Your task to perform on an android device: Add usb-a to the cart on amazon Image 0: 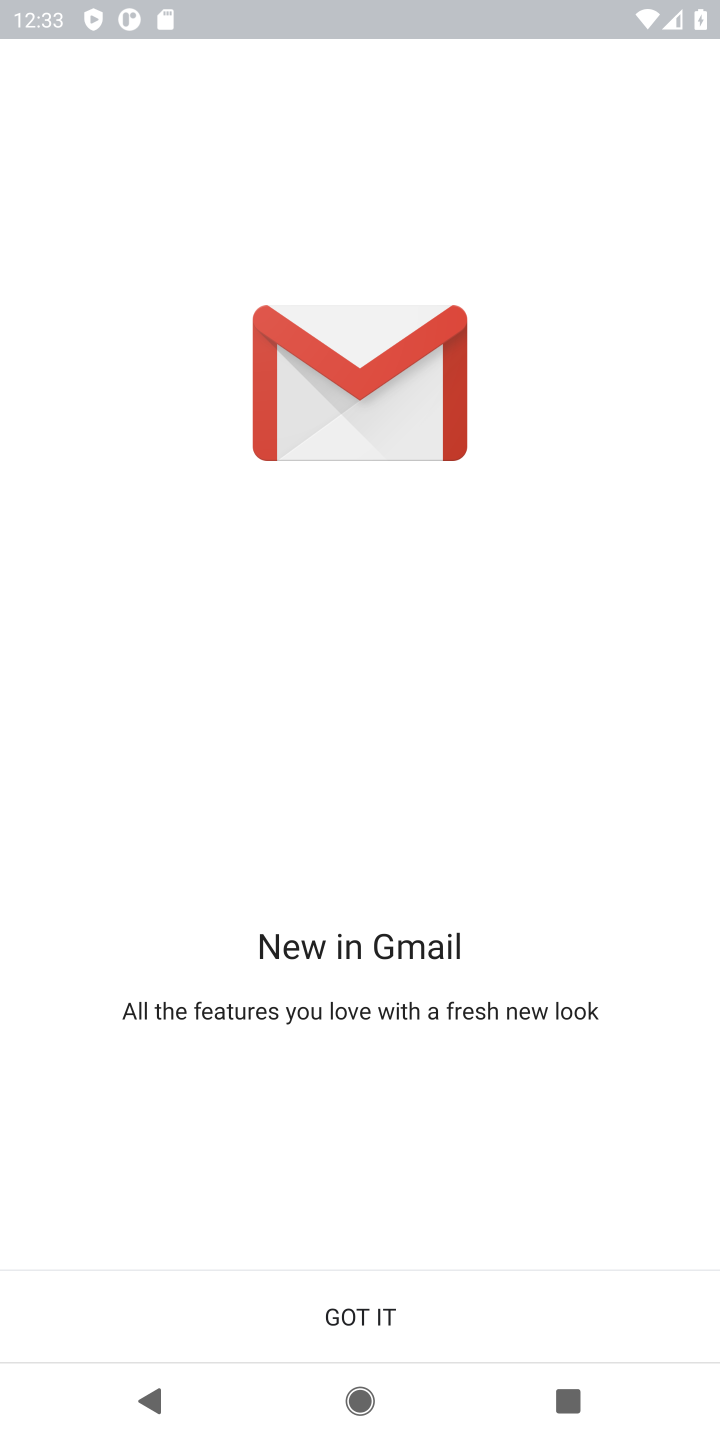
Step 0: press home button
Your task to perform on an android device: Add usb-a to the cart on amazon Image 1: 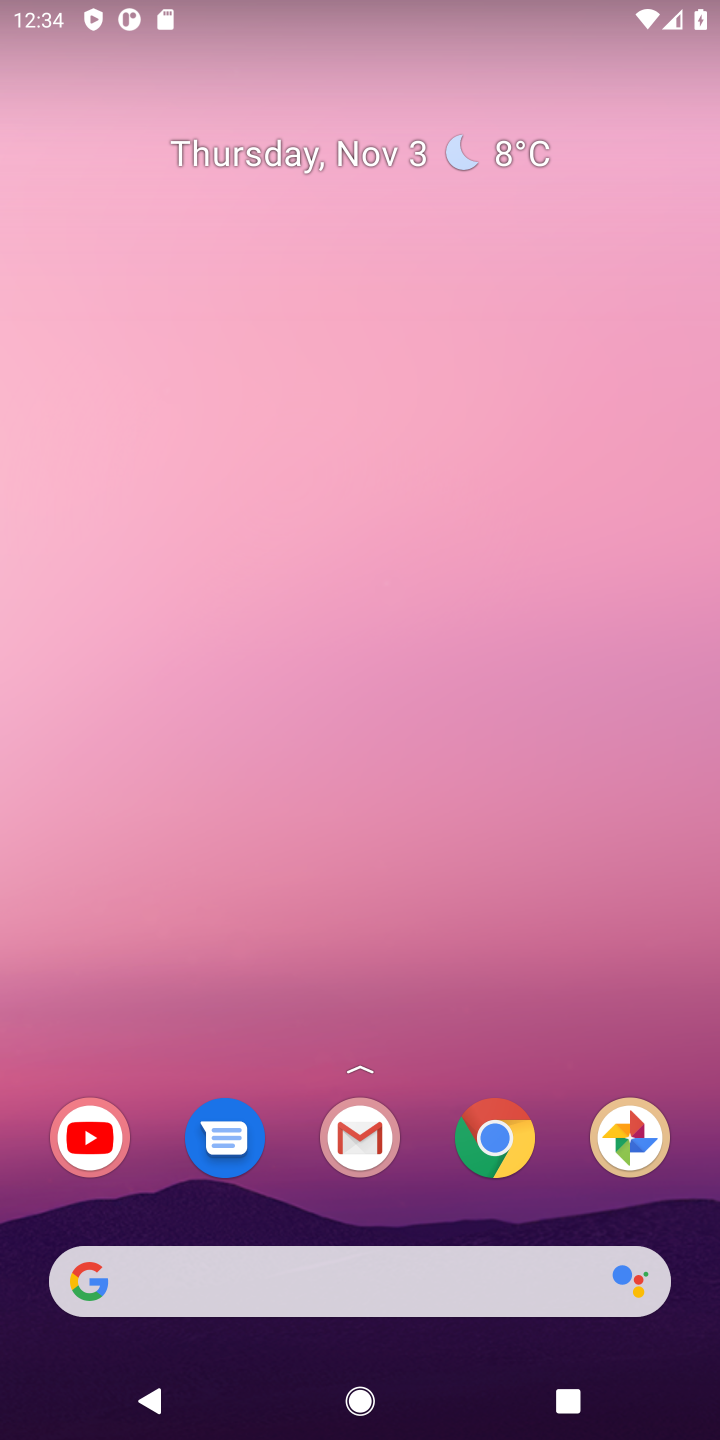
Step 1: click (471, 1111)
Your task to perform on an android device: Add usb-a to the cart on amazon Image 2: 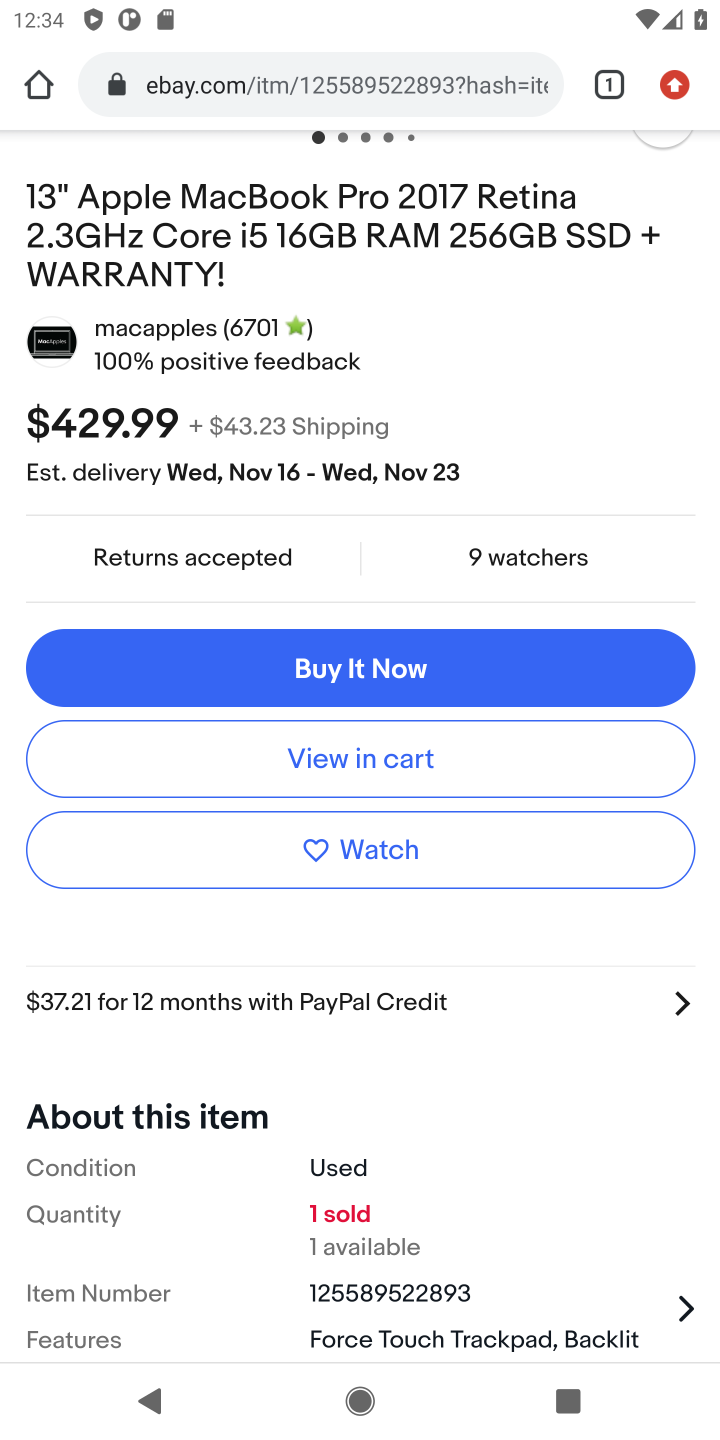
Step 2: click (202, 98)
Your task to perform on an android device: Add usb-a to the cart on amazon Image 3: 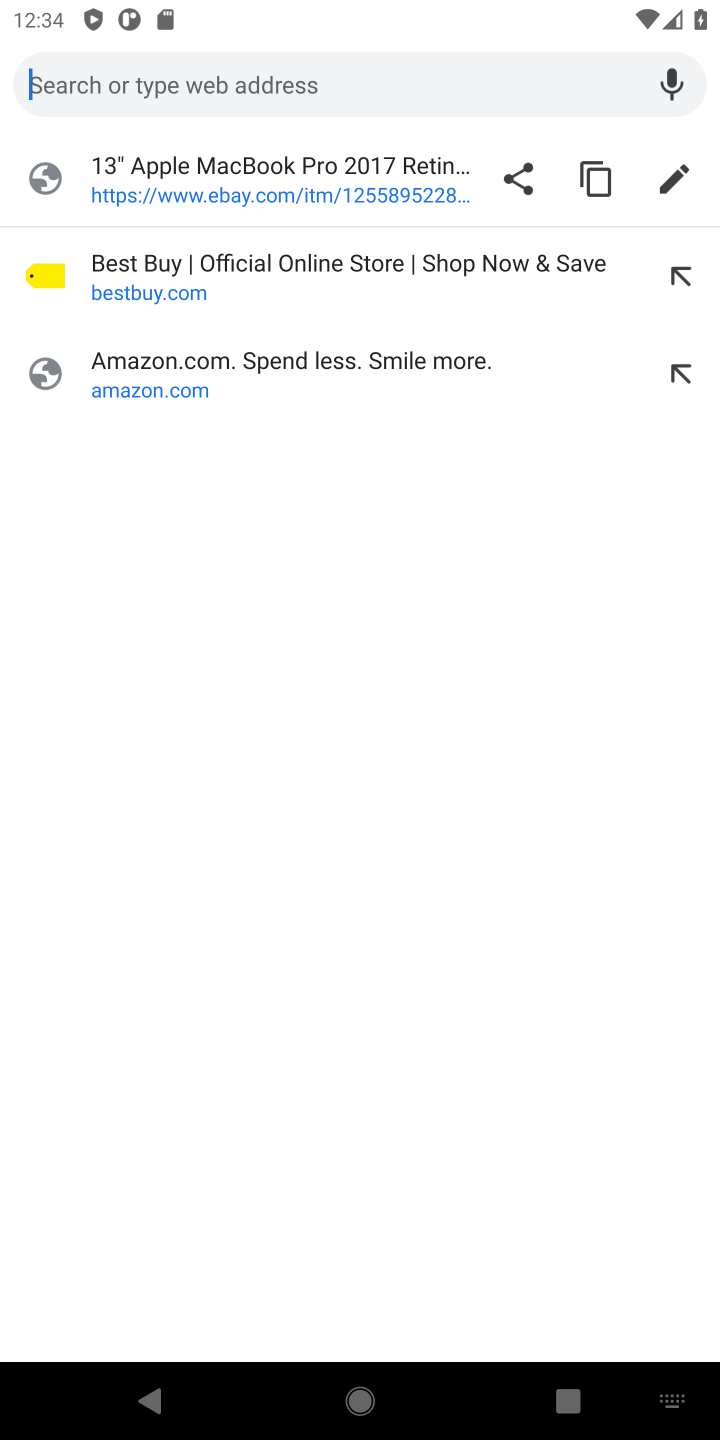
Step 3: type "amazon"
Your task to perform on an android device: Add usb-a to the cart on amazon Image 4: 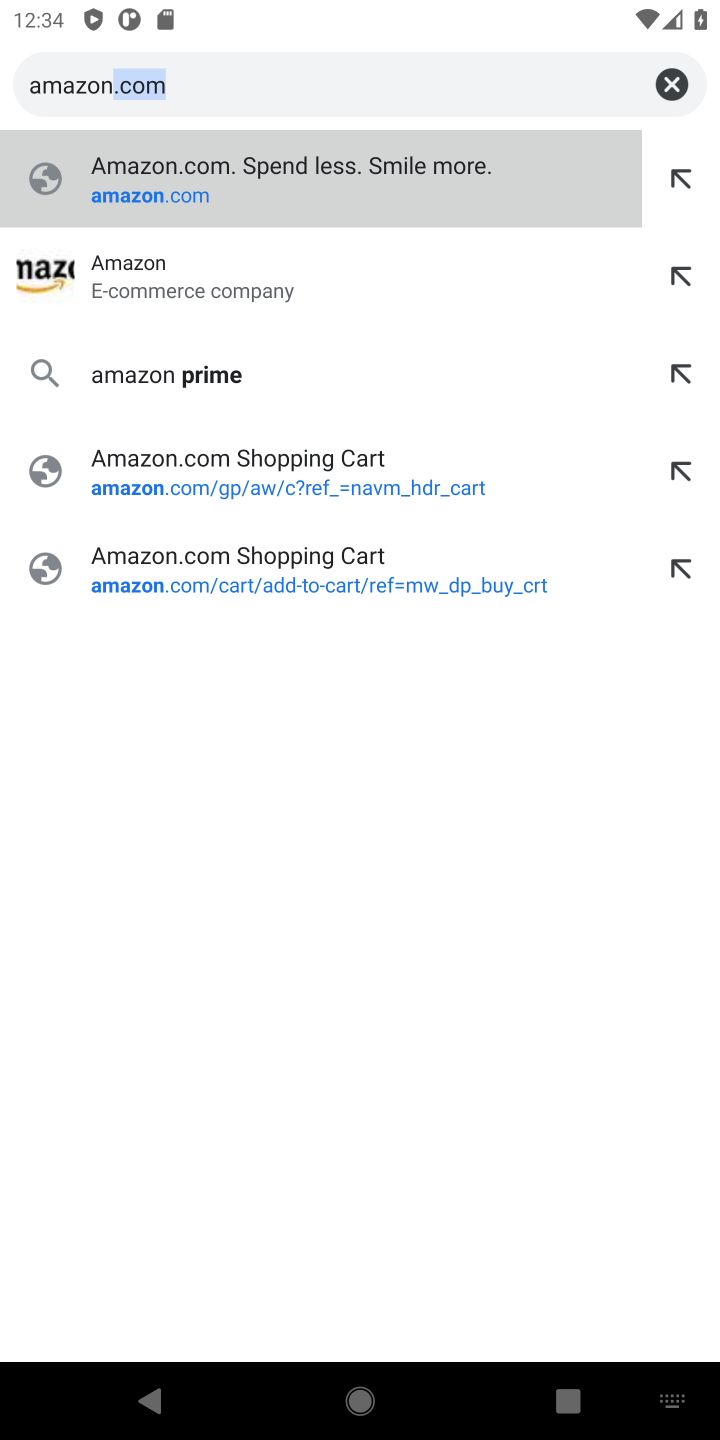
Step 4: click (126, 260)
Your task to perform on an android device: Add usb-a to the cart on amazon Image 5: 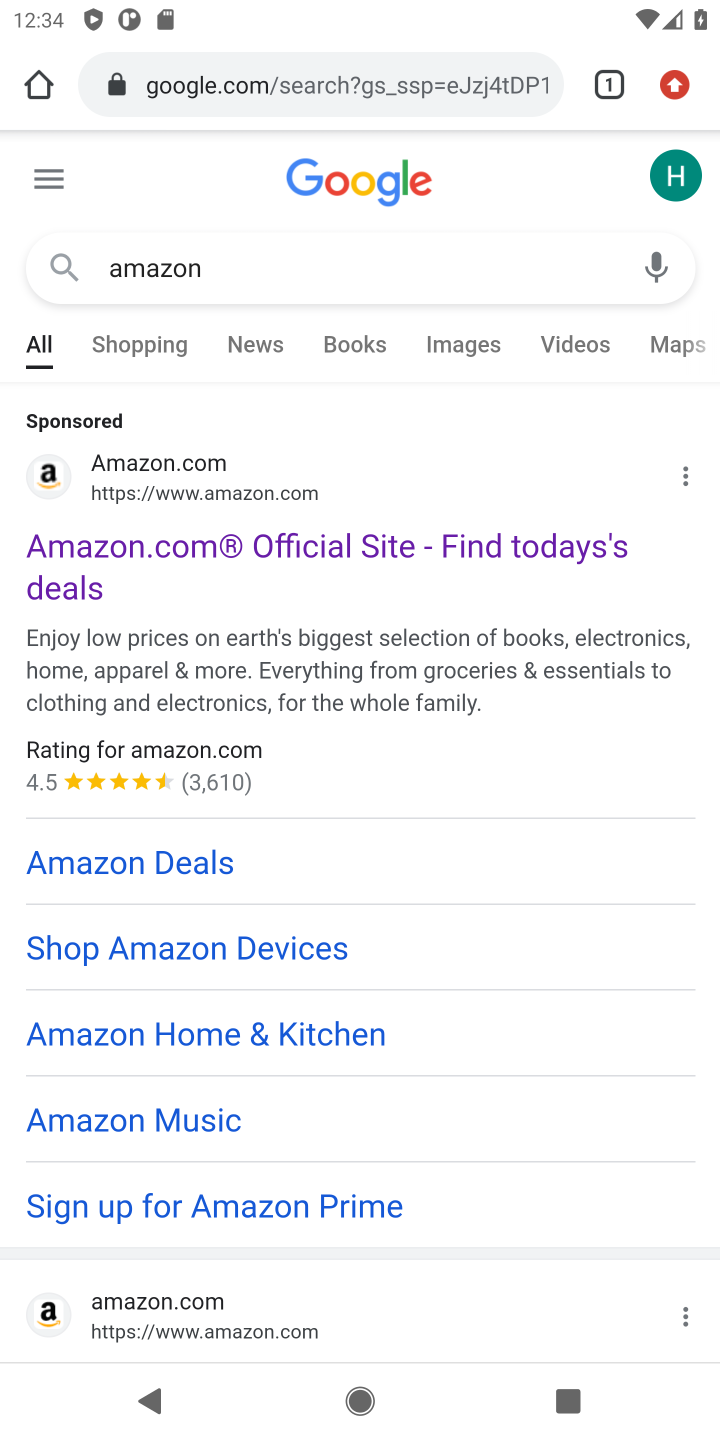
Step 5: click (65, 565)
Your task to perform on an android device: Add usb-a to the cart on amazon Image 6: 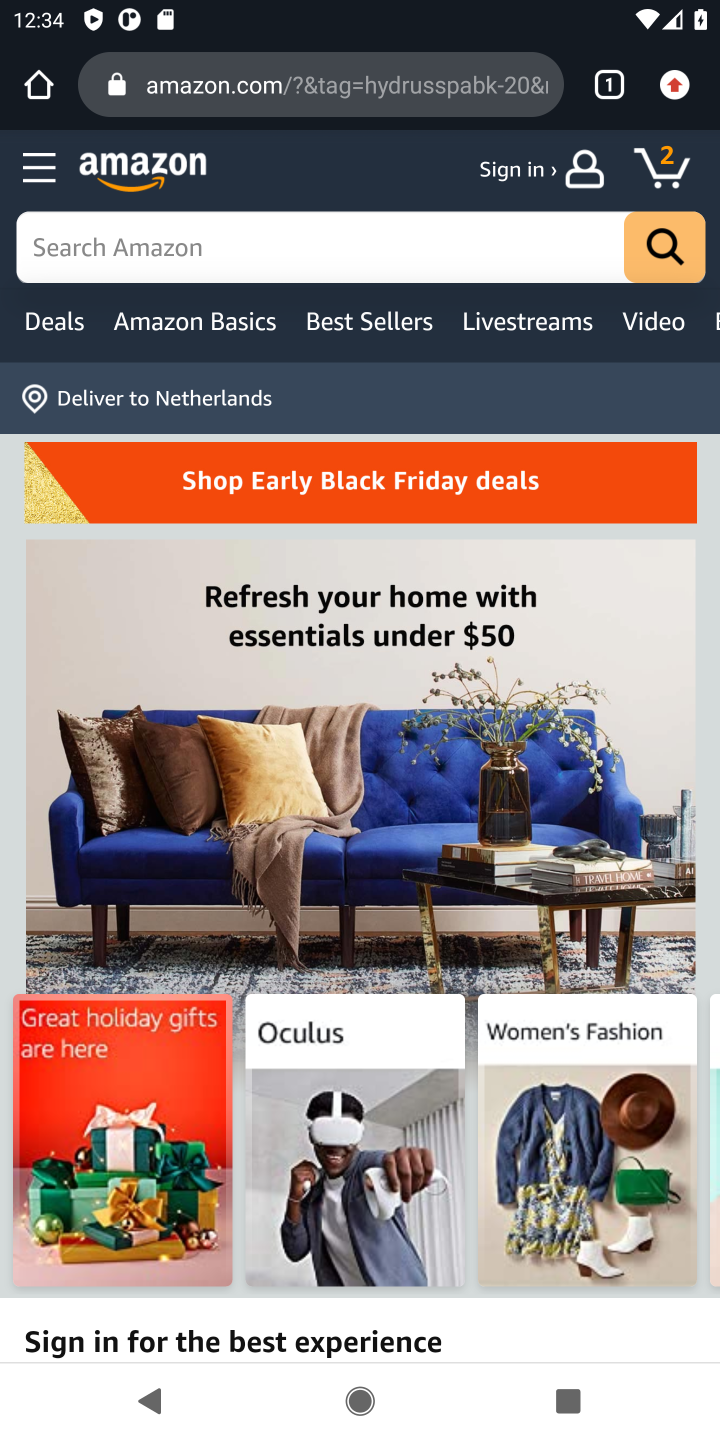
Step 6: click (281, 231)
Your task to perform on an android device: Add usb-a to the cart on amazon Image 7: 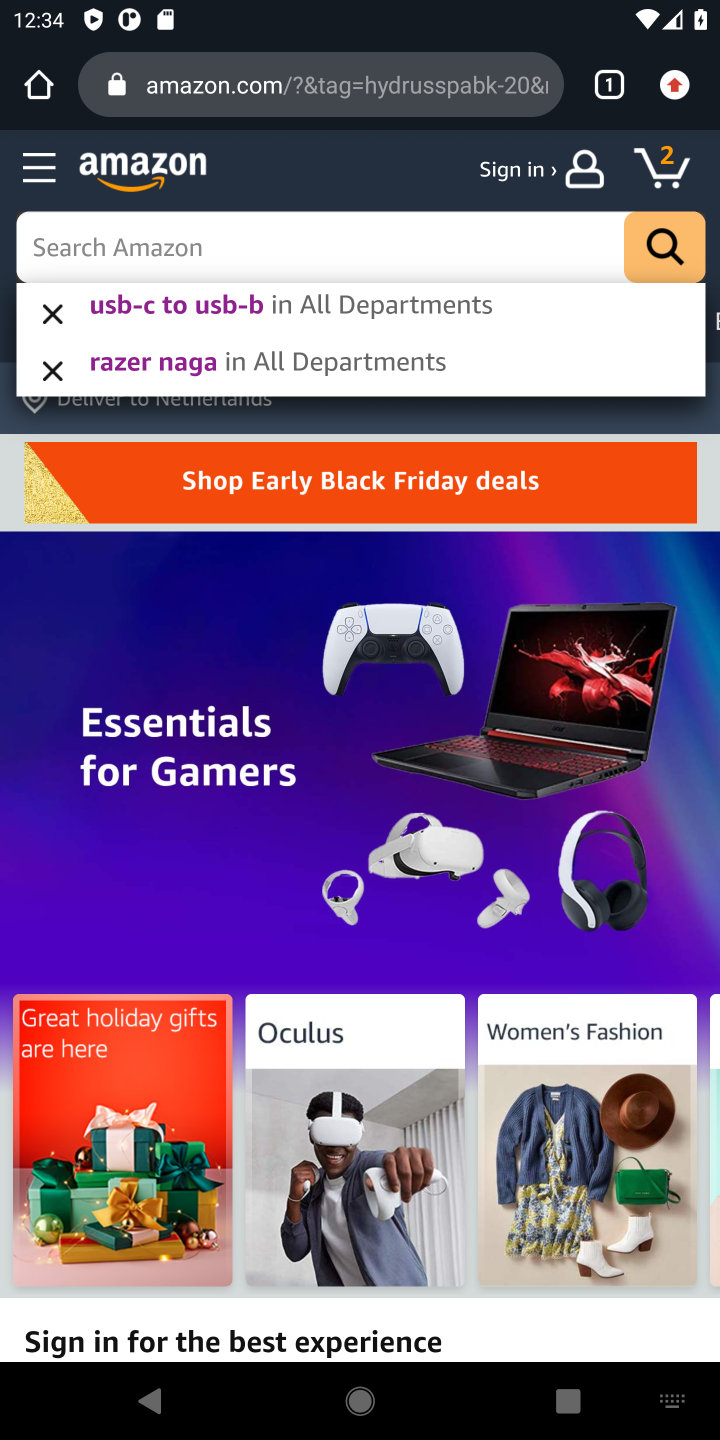
Step 7: type "usb-a"
Your task to perform on an android device: Add usb-a to the cart on amazon Image 8: 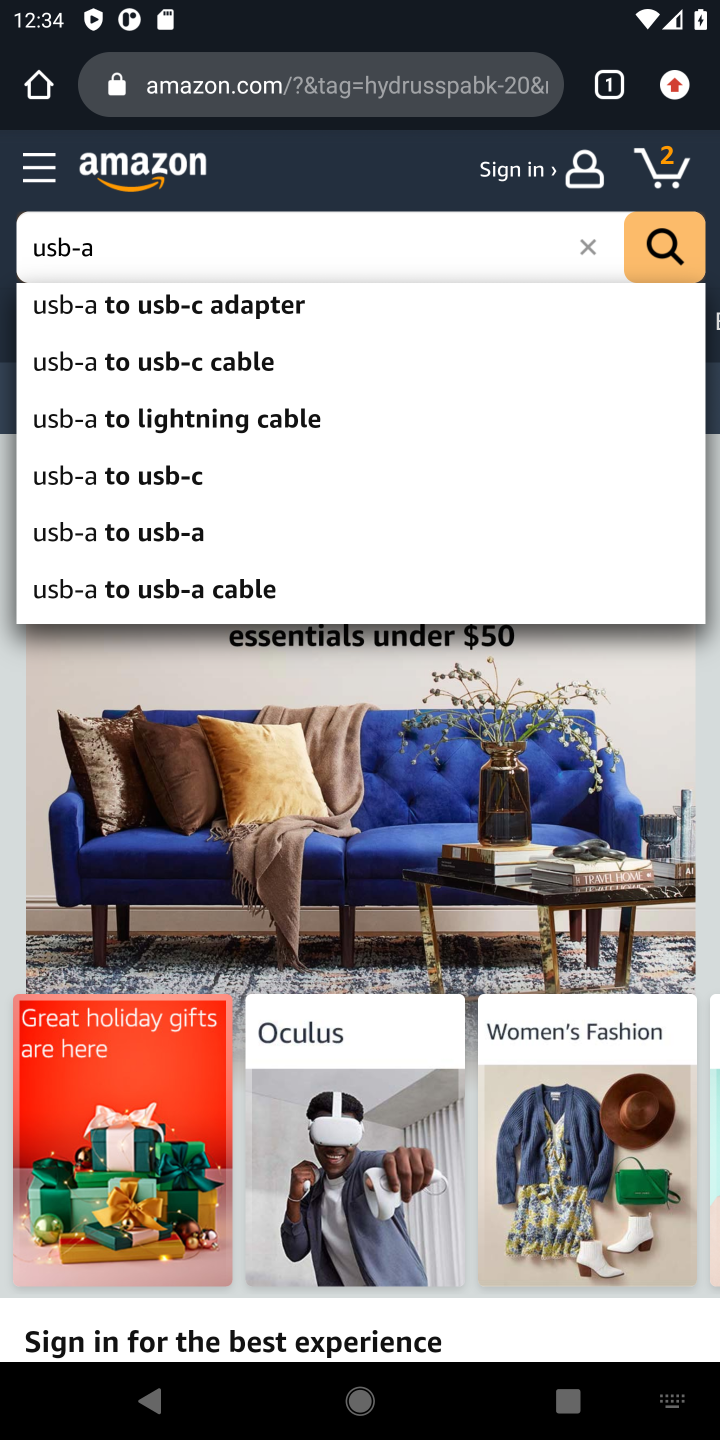
Step 8: click (678, 258)
Your task to perform on an android device: Add usb-a to the cart on amazon Image 9: 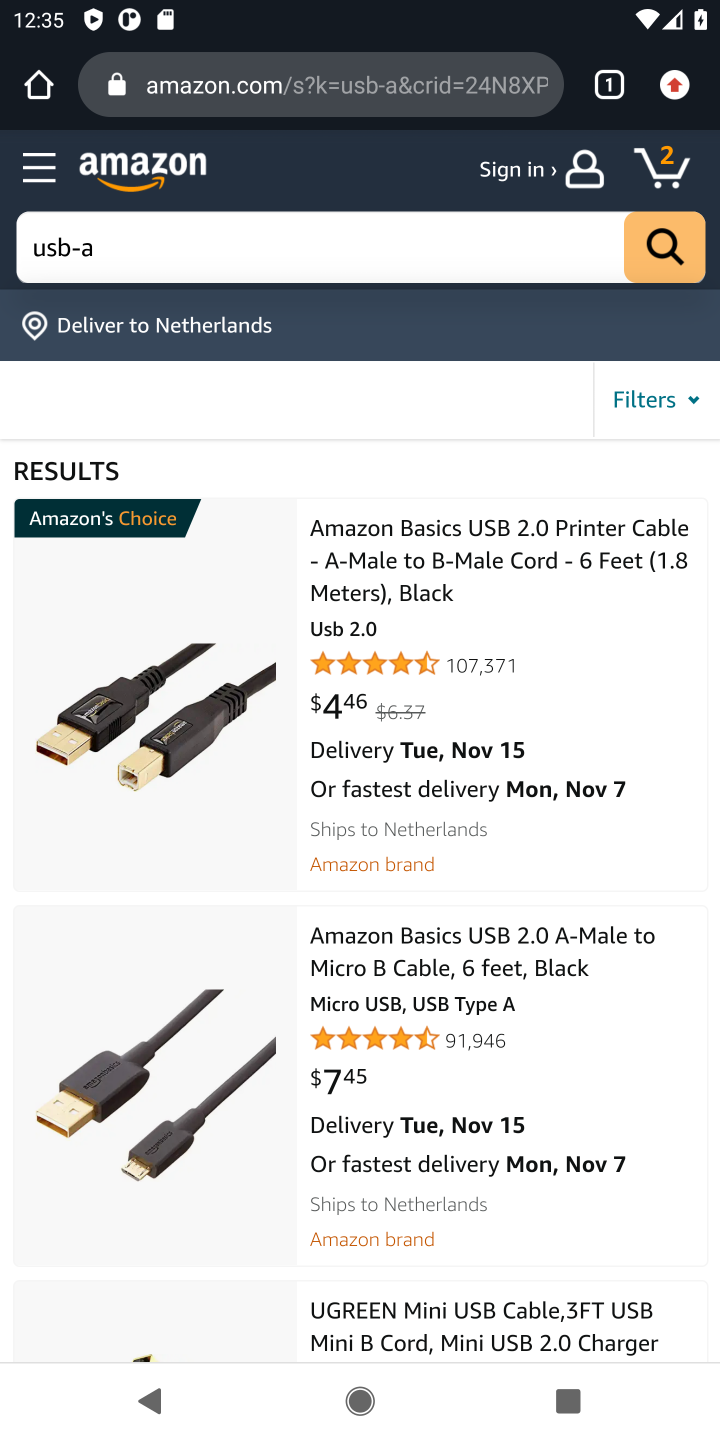
Step 9: click (423, 563)
Your task to perform on an android device: Add usb-a to the cart on amazon Image 10: 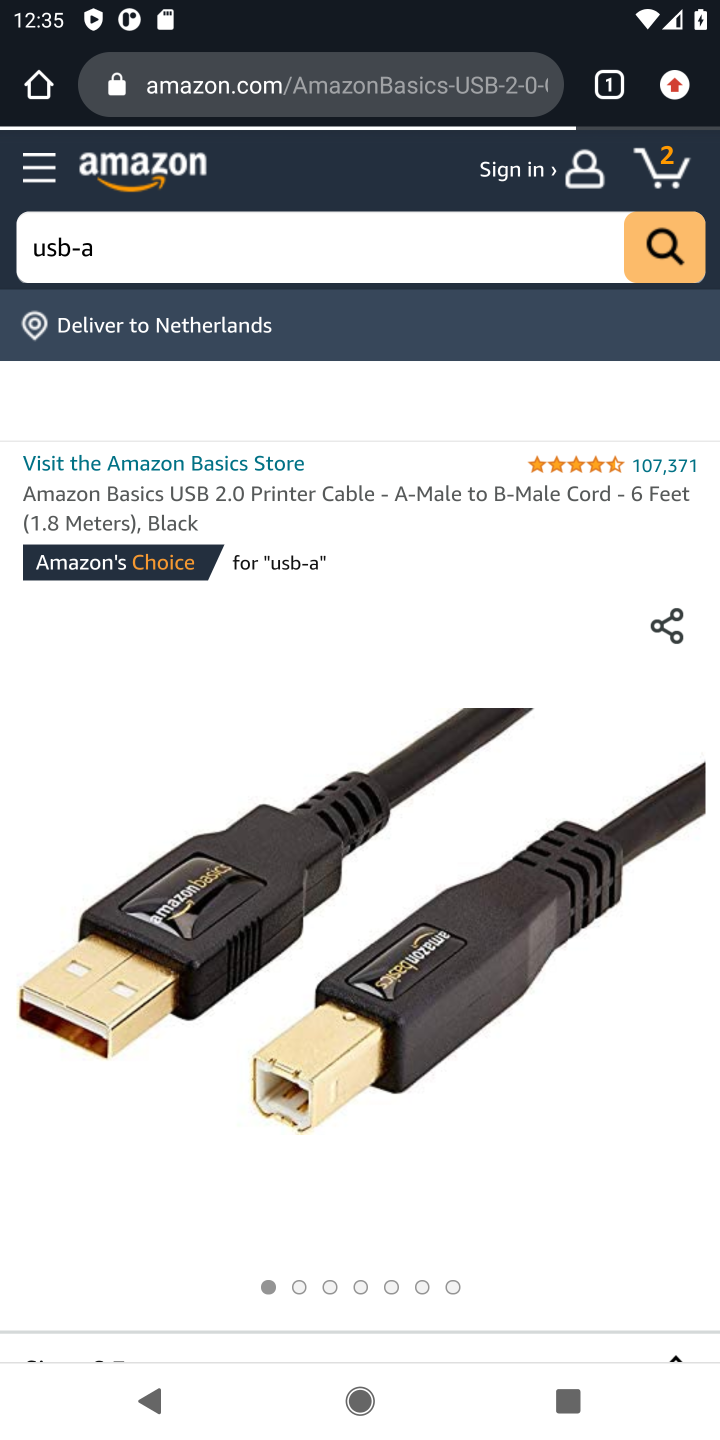
Step 10: drag from (177, 1195) to (232, 204)
Your task to perform on an android device: Add usb-a to the cart on amazon Image 11: 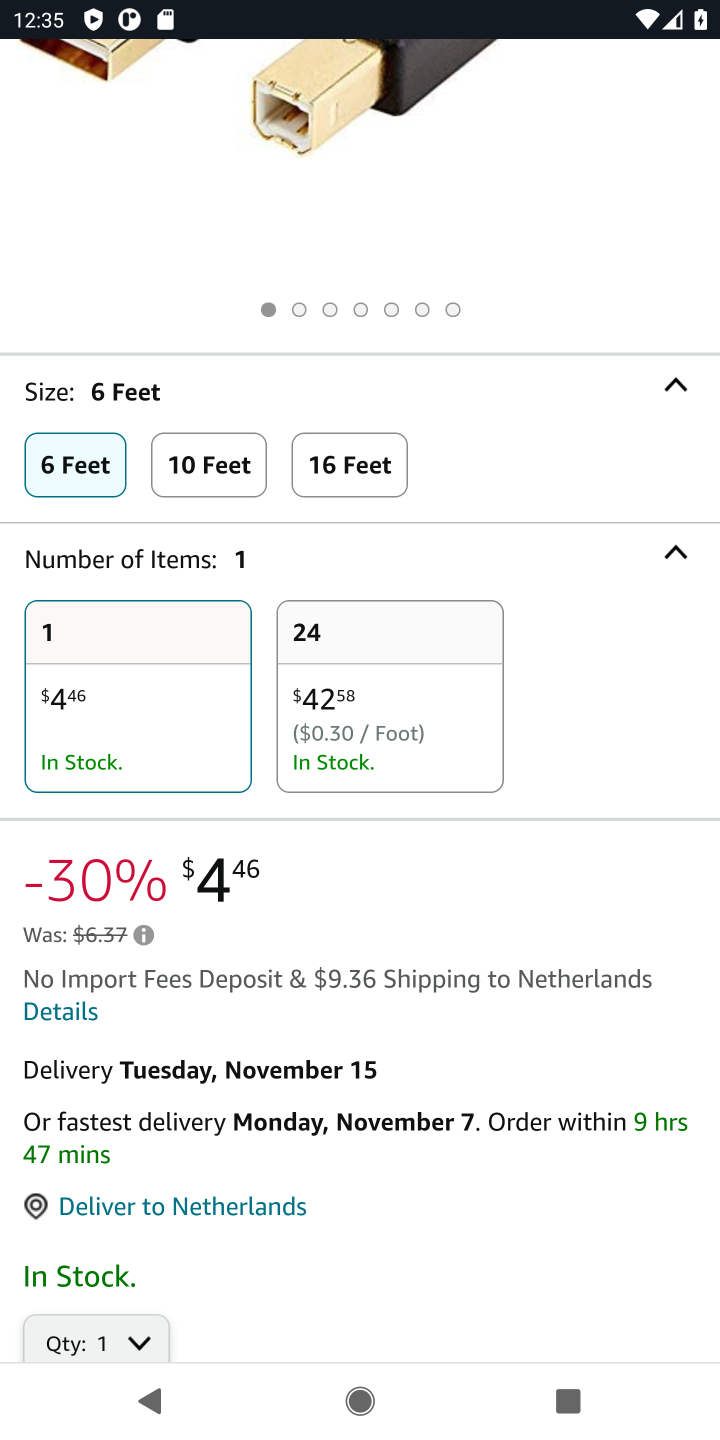
Step 11: drag from (347, 1260) to (404, 261)
Your task to perform on an android device: Add usb-a to the cart on amazon Image 12: 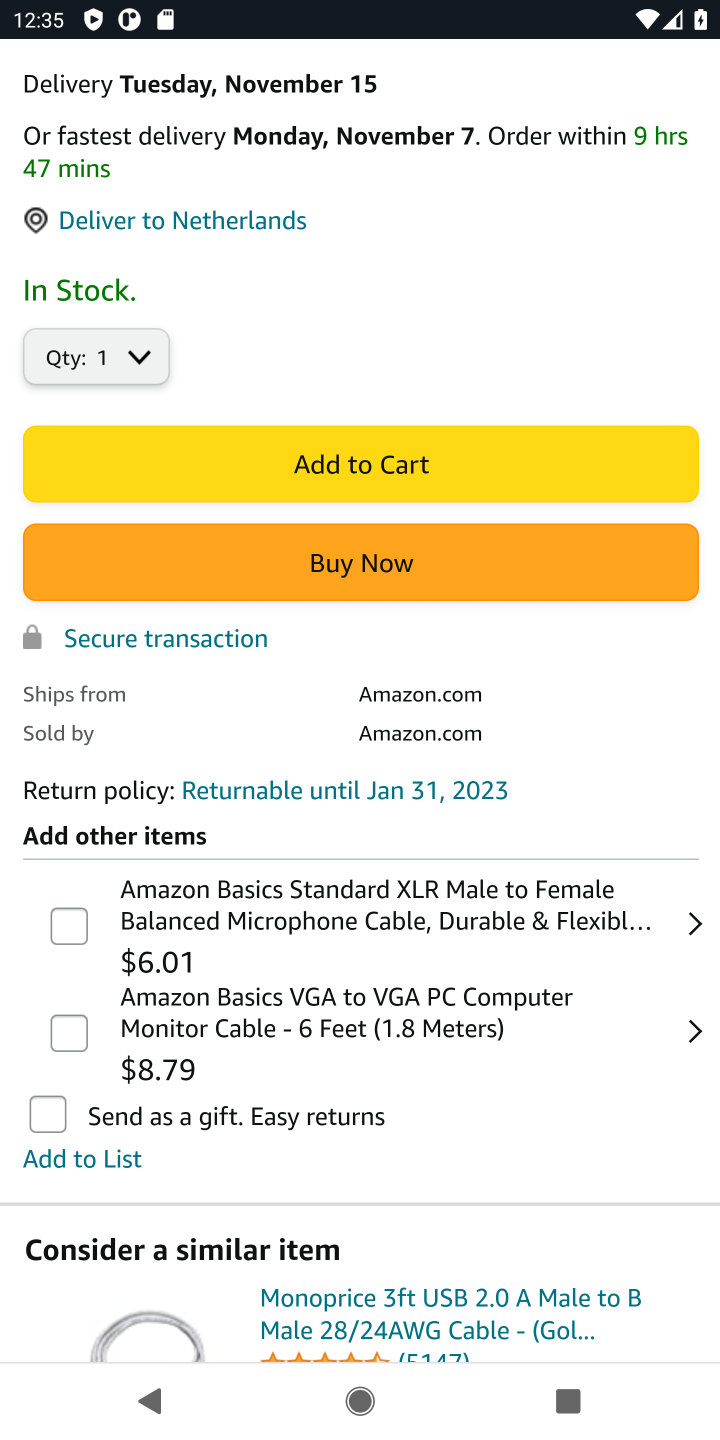
Step 12: click (329, 457)
Your task to perform on an android device: Add usb-a to the cart on amazon Image 13: 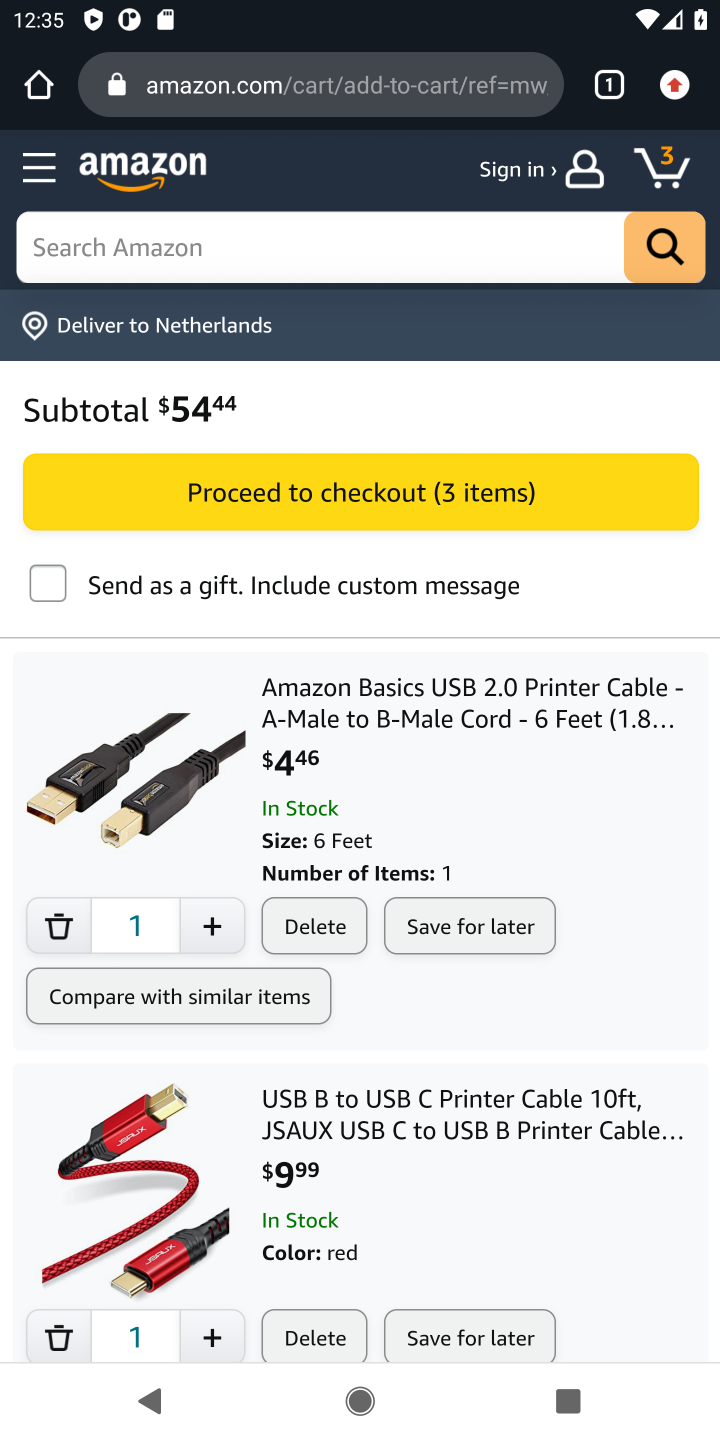
Step 13: task complete